Your task to perform on an android device: turn on showing notifications on the lock screen Image 0: 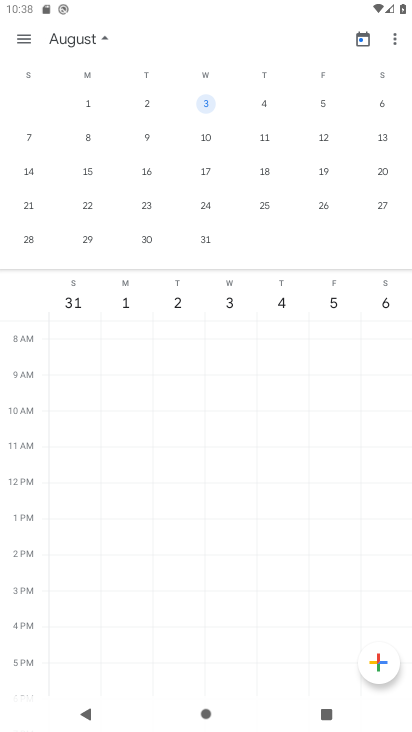
Step 0: press home button
Your task to perform on an android device: turn on showing notifications on the lock screen Image 1: 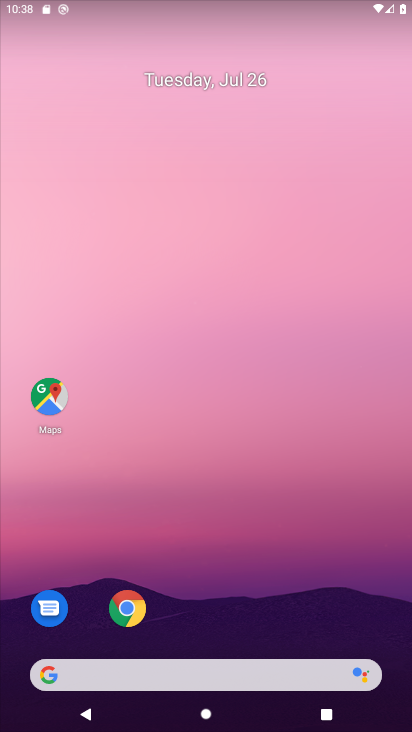
Step 1: drag from (355, 601) to (340, 58)
Your task to perform on an android device: turn on showing notifications on the lock screen Image 2: 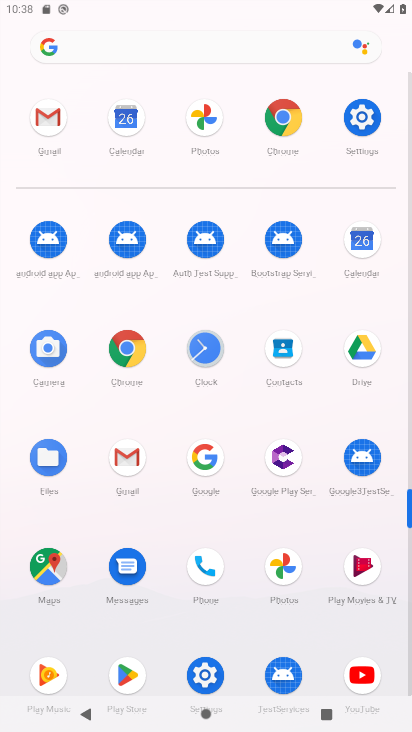
Step 2: click (367, 114)
Your task to perform on an android device: turn on showing notifications on the lock screen Image 3: 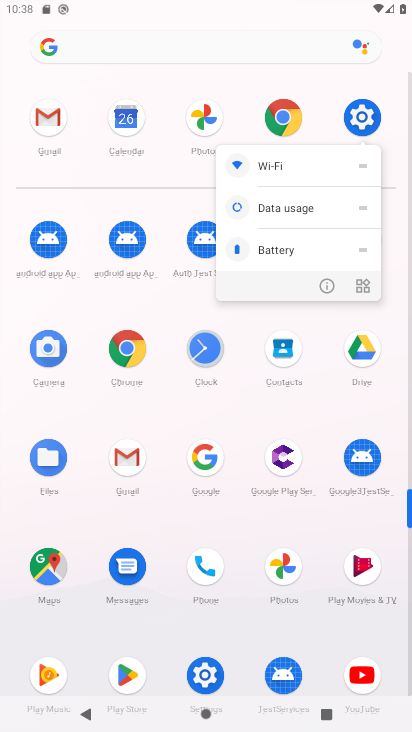
Step 3: click (367, 122)
Your task to perform on an android device: turn on showing notifications on the lock screen Image 4: 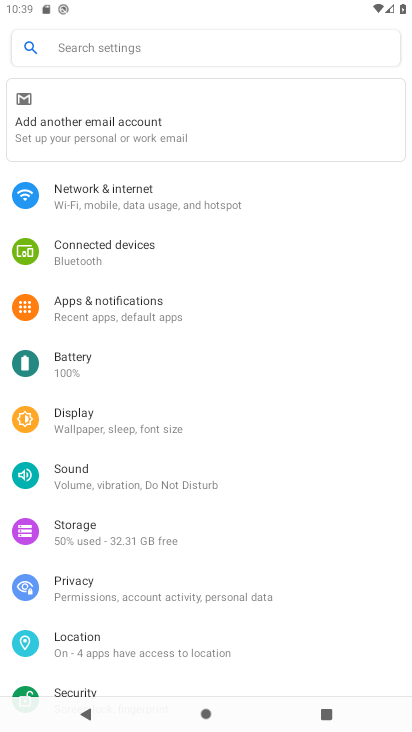
Step 4: click (88, 317)
Your task to perform on an android device: turn on showing notifications on the lock screen Image 5: 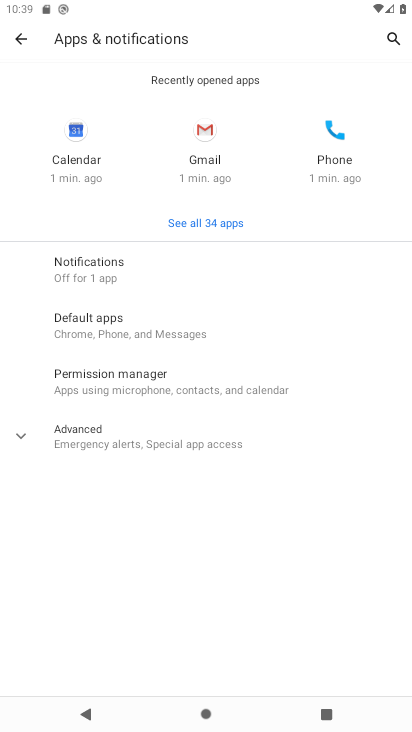
Step 5: click (106, 262)
Your task to perform on an android device: turn on showing notifications on the lock screen Image 6: 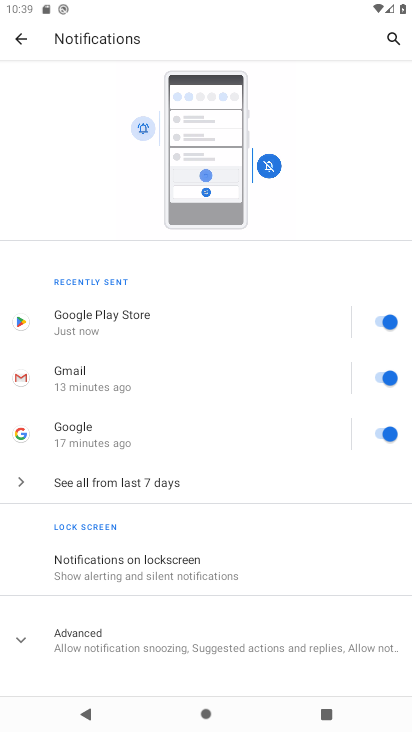
Step 6: click (150, 569)
Your task to perform on an android device: turn on showing notifications on the lock screen Image 7: 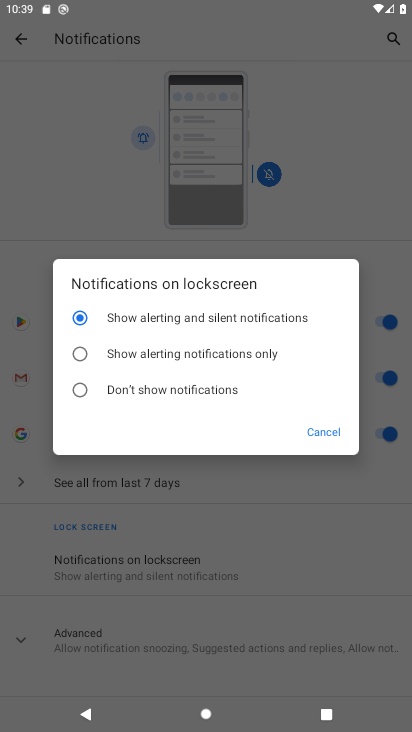
Step 7: click (167, 351)
Your task to perform on an android device: turn on showing notifications on the lock screen Image 8: 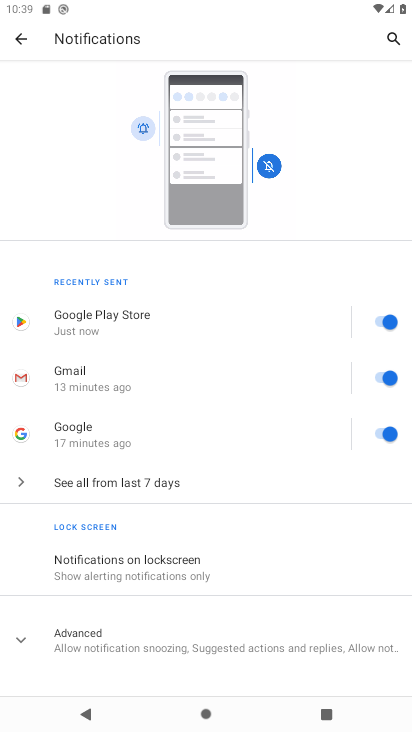
Step 8: task complete